Your task to perform on an android device: turn on showing notifications on the lock screen Image 0: 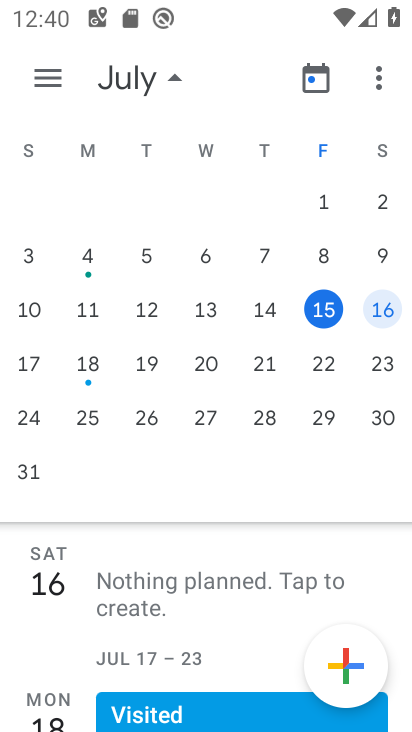
Step 0: press home button
Your task to perform on an android device: turn on showing notifications on the lock screen Image 1: 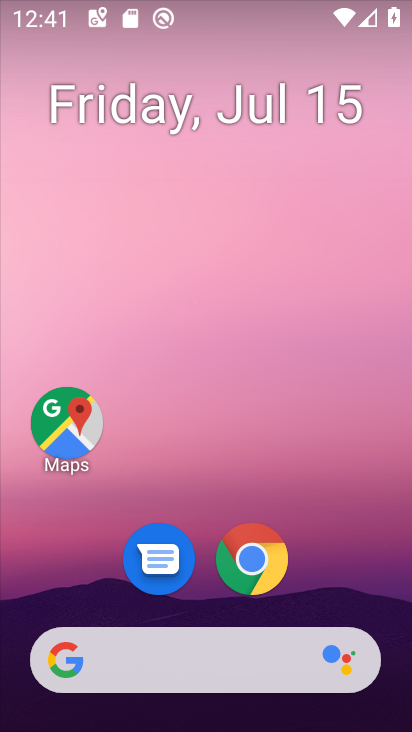
Step 1: drag from (333, 598) to (352, 145)
Your task to perform on an android device: turn on showing notifications on the lock screen Image 2: 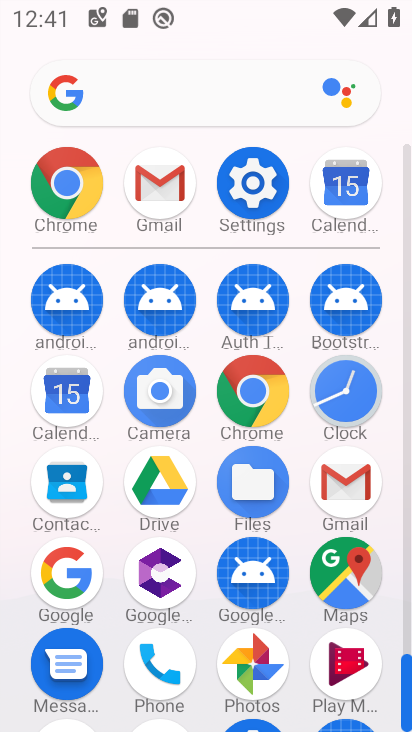
Step 2: click (258, 203)
Your task to perform on an android device: turn on showing notifications on the lock screen Image 3: 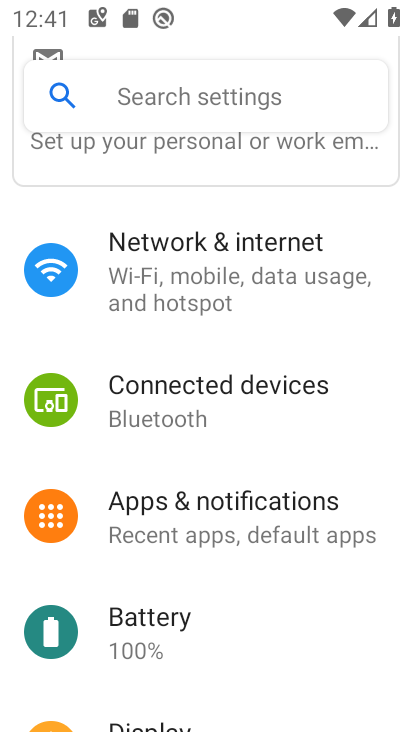
Step 3: drag from (345, 613) to (351, 506)
Your task to perform on an android device: turn on showing notifications on the lock screen Image 4: 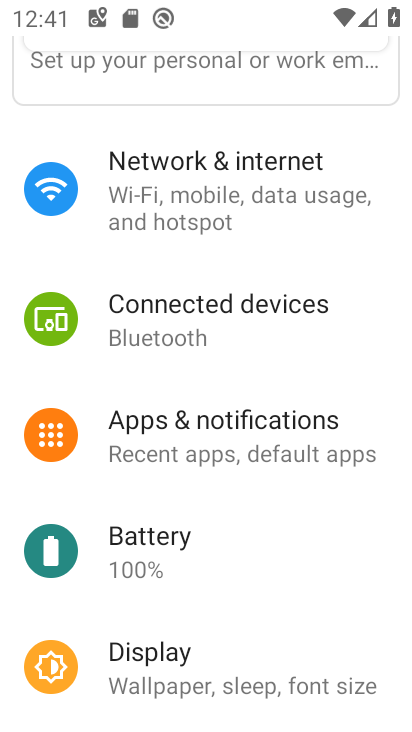
Step 4: drag from (343, 601) to (340, 415)
Your task to perform on an android device: turn on showing notifications on the lock screen Image 5: 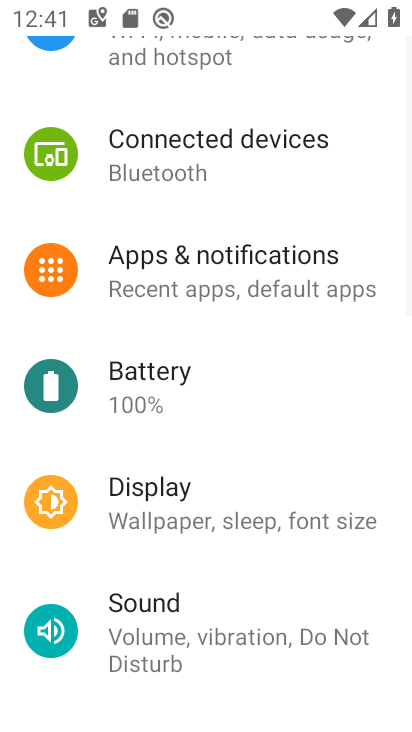
Step 5: drag from (347, 579) to (347, 489)
Your task to perform on an android device: turn on showing notifications on the lock screen Image 6: 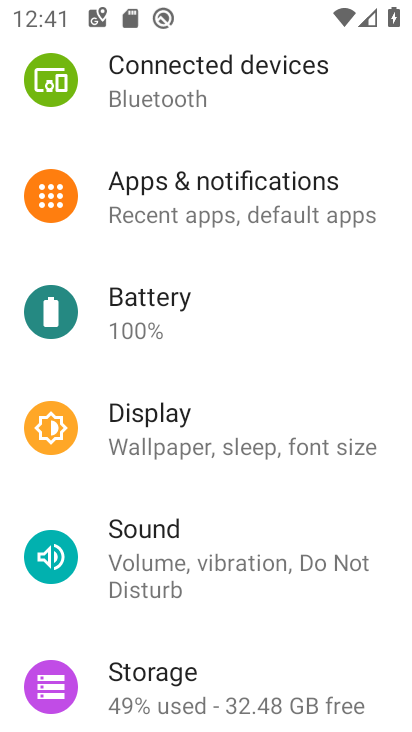
Step 6: click (333, 224)
Your task to perform on an android device: turn on showing notifications on the lock screen Image 7: 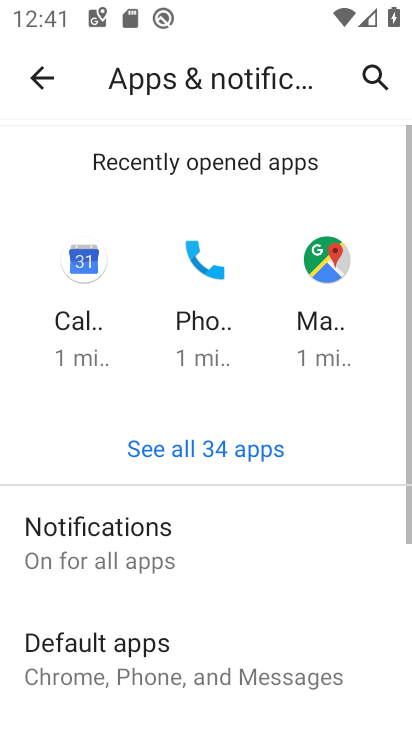
Step 7: drag from (248, 563) to (307, 280)
Your task to perform on an android device: turn on showing notifications on the lock screen Image 8: 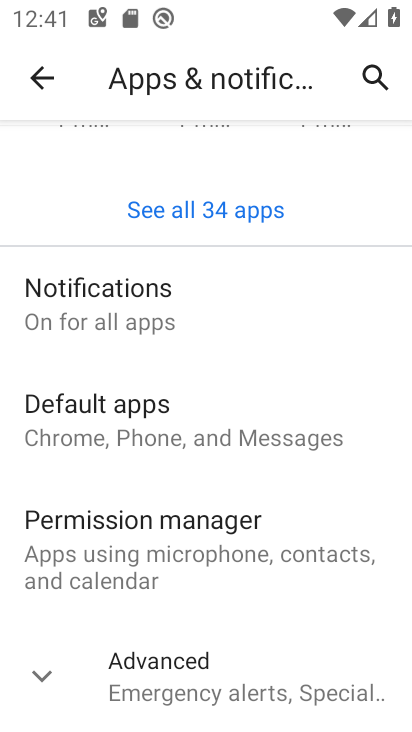
Step 8: click (288, 295)
Your task to perform on an android device: turn on showing notifications on the lock screen Image 9: 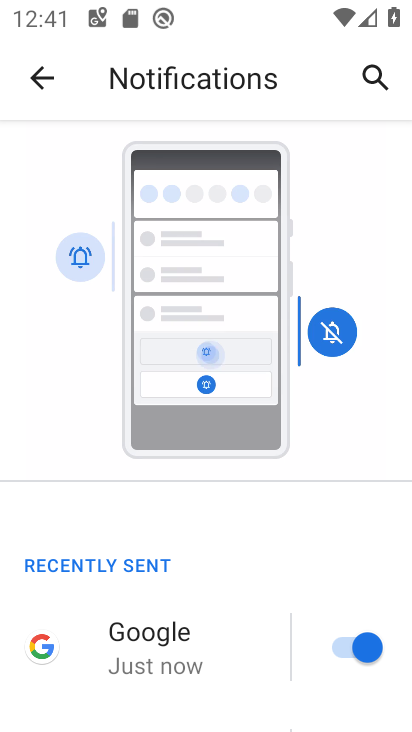
Step 9: drag from (315, 554) to (329, 440)
Your task to perform on an android device: turn on showing notifications on the lock screen Image 10: 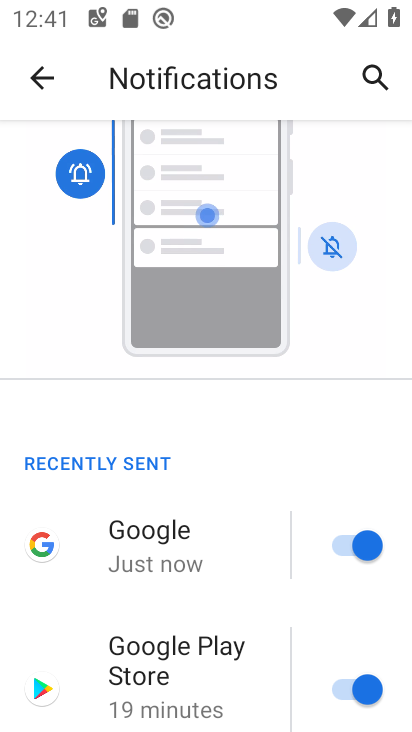
Step 10: drag from (305, 596) to (307, 503)
Your task to perform on an android device: turn on showing notifications on the lock screen Image 11: 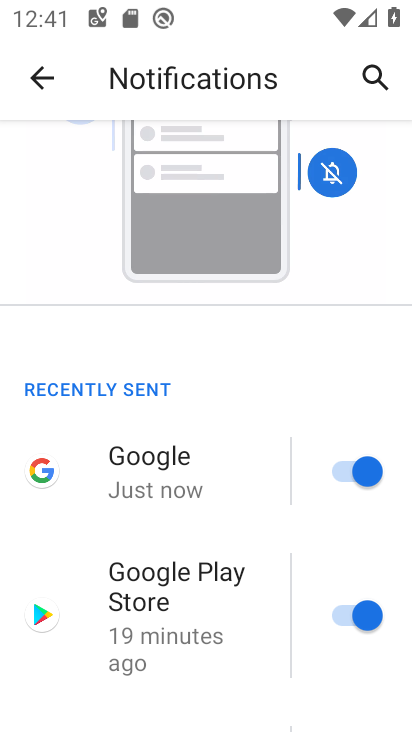
Step 11: drag from (225, 602) to (231, 475)
Your task to perform on an android device: turn on showing notifications on the lock screen Image 12: 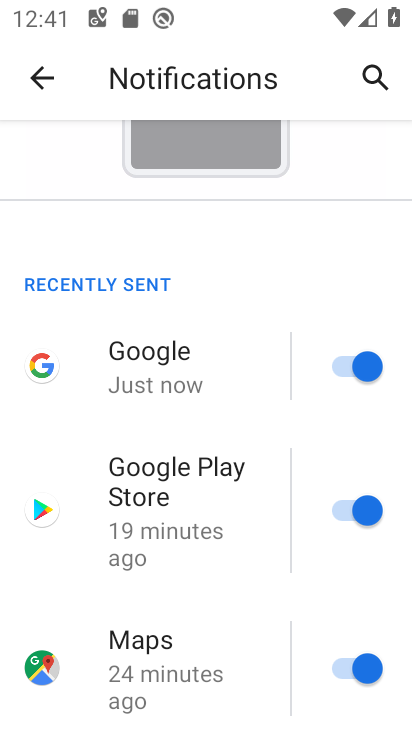
Step 12: drag from (210, 545) to (196, 430)
Your task to perform on an android device: turn on showing notifications on the lock screen Image 13: 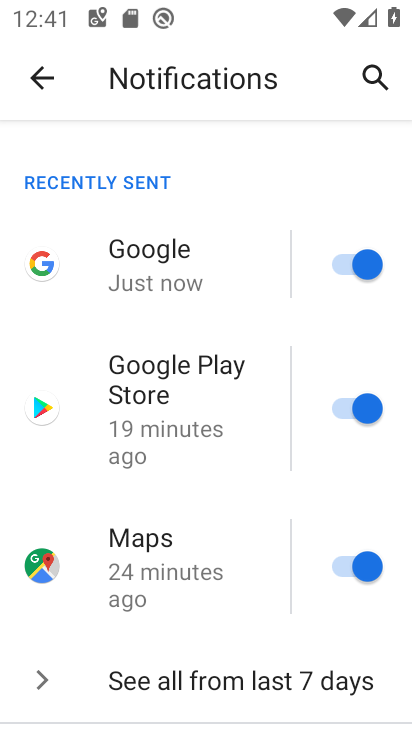
Step 13: drag from (246, 586) to (245, 453)
Your task to perform on an android device: turn on showing notifications on the lock screen Image 14: 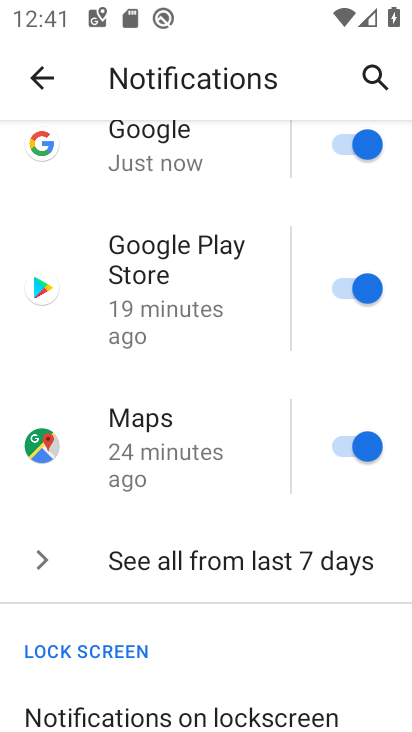
Step 14: drag from (235, 619) to (224, 494)
Your task to perform on an android device: turn on showing notifications on the lock screen Image 15: 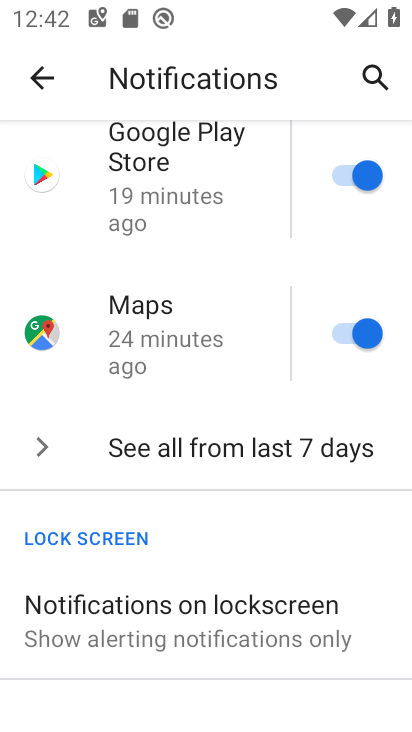
Step 15: drag from (245, 653) to (236, 512)
Your task to perform on an android device: turn on showing notifications on the lock screen Image 16: 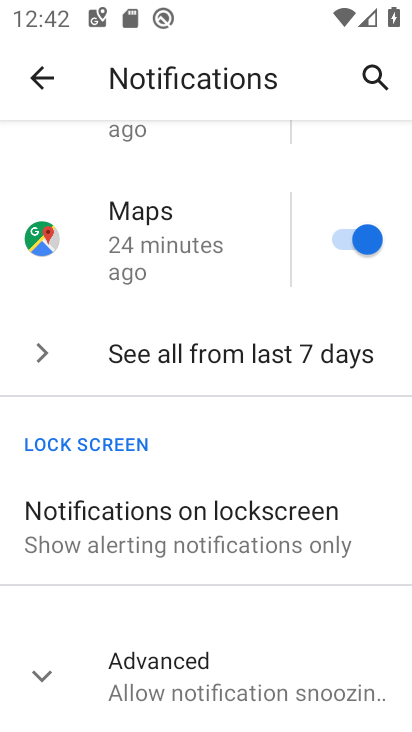
Step 16: click (242, 530)
Your task to perform on an android device: turn on showing notifications on the lock screen Image 17: 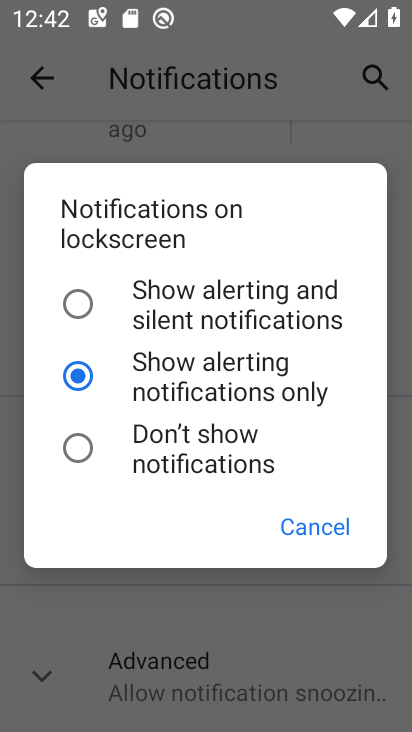
Step 17: task complete